Your task to perform on an android device: stop showing notifications on the lock screen Image 0: 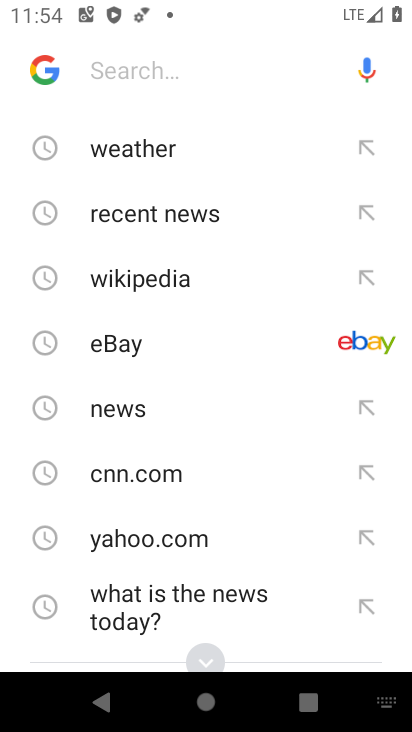
Step 0: press home button
Your task to perform on an android device: stop showing notifications on the lock screen Image 1: 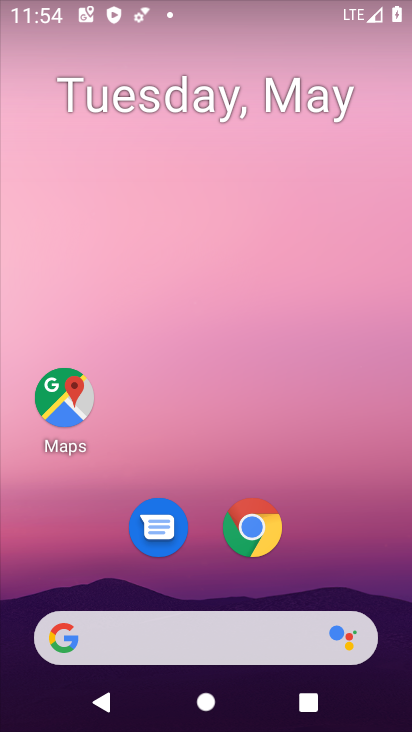
Step 1: drag from (272, 607) to (226, 107)
Your task to perform on an android device: stop showing notifications on the lock screen Image 2: 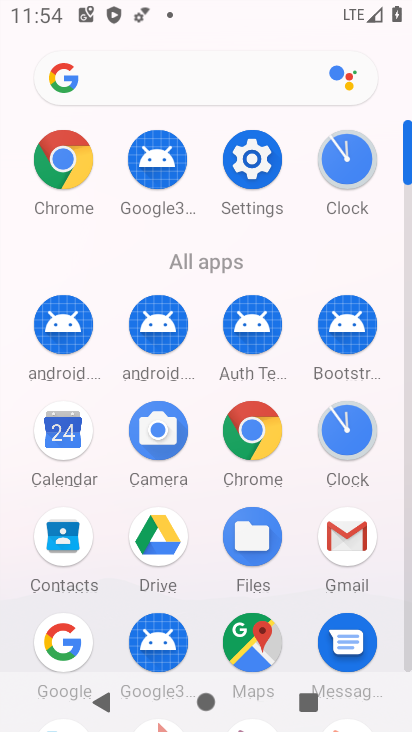
Step 2: click (246, 175)
Your task to perform on an android device: stop showing notifications on the lock screen Image 3: 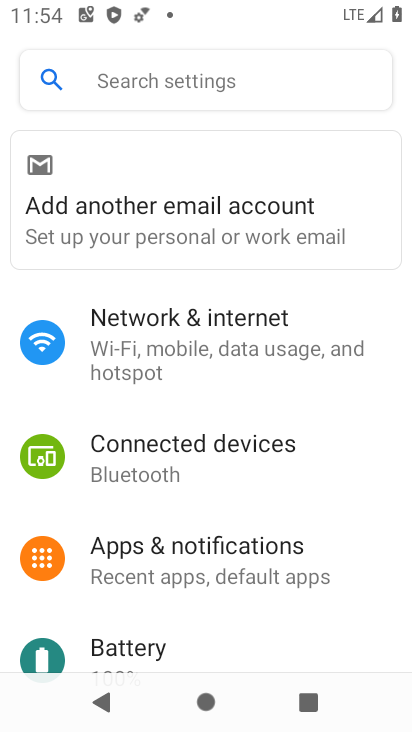
Step 3: click (253, 558)
Your task to perform on an android device: stop showing notifications on the lock screen Image 4: 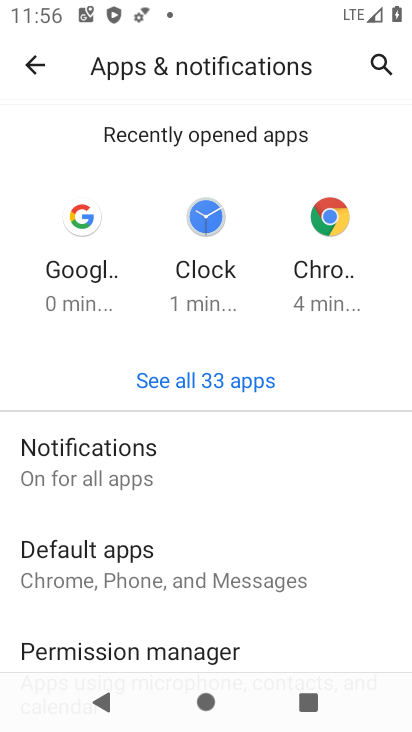
Step 4: click (121, 442)
Your task to perform on an android device: stop showing notifications on the lock screen Image 5: 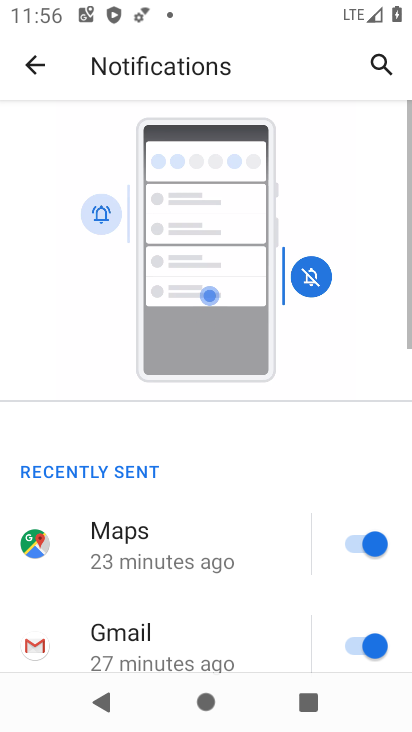
Step 5: drag from (171, 650) to (201, 80)
Your task to perform on an android device: stop showing notifications on the lock screen Image 6: 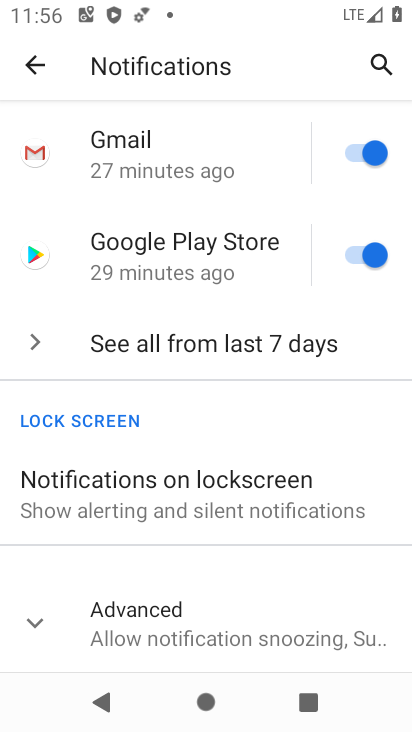
Step 6: click (245, 509)
Your task to perform on an android device: stop showing notifications on the lock screen Image 7: 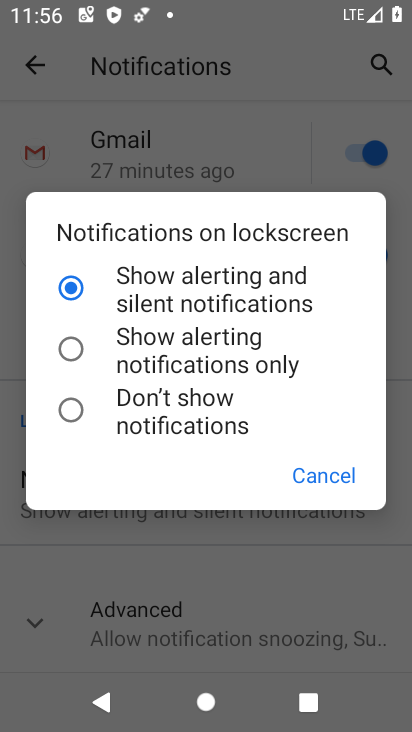
Step 7: click (195, 406)
Your task to perform on an android device: stop showing notifications on the lock screen Image 8: 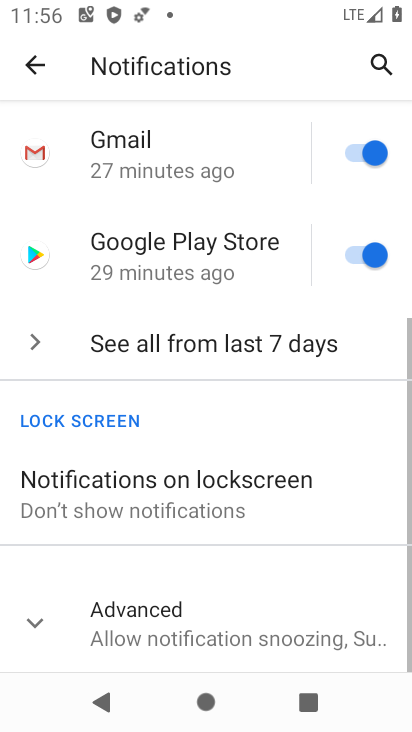
Step 8: task complete